Your task to perform on an android device: Go to Google Image 0: 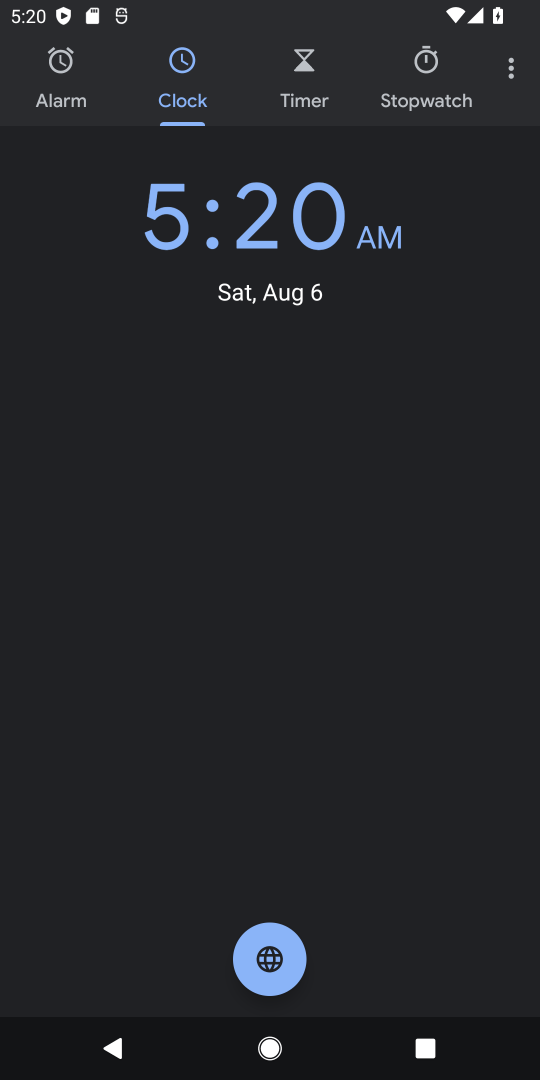
Step 0: press home button
Your task to perform on an android device: Go to Google Image 1: 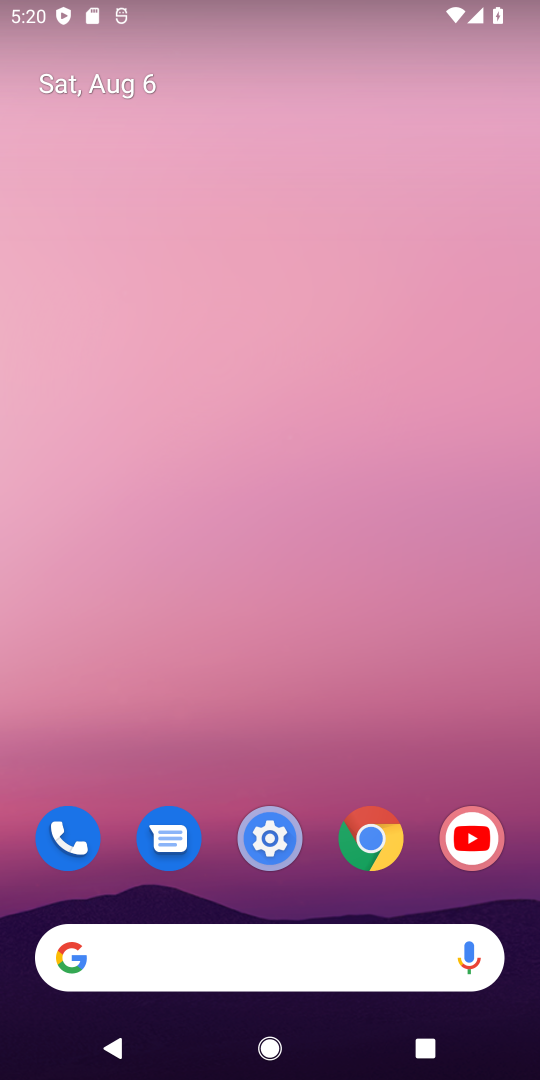
Step 1: click (217, 903)
Your task to perform on an android device: Go to Google Image 2: 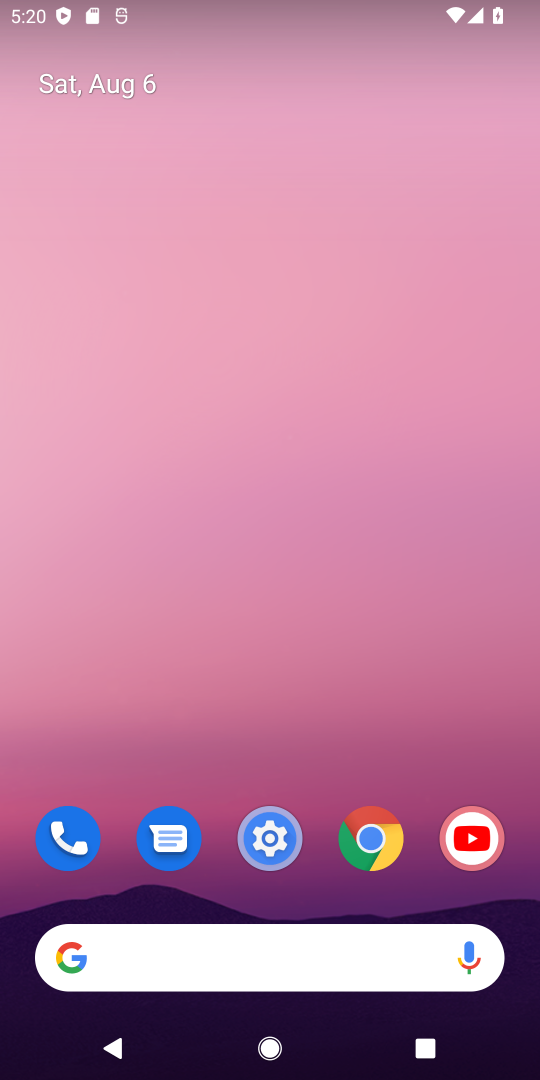
Step 2: click (50, 968)
Your task to perform on an android device: Go to Google Image 3: 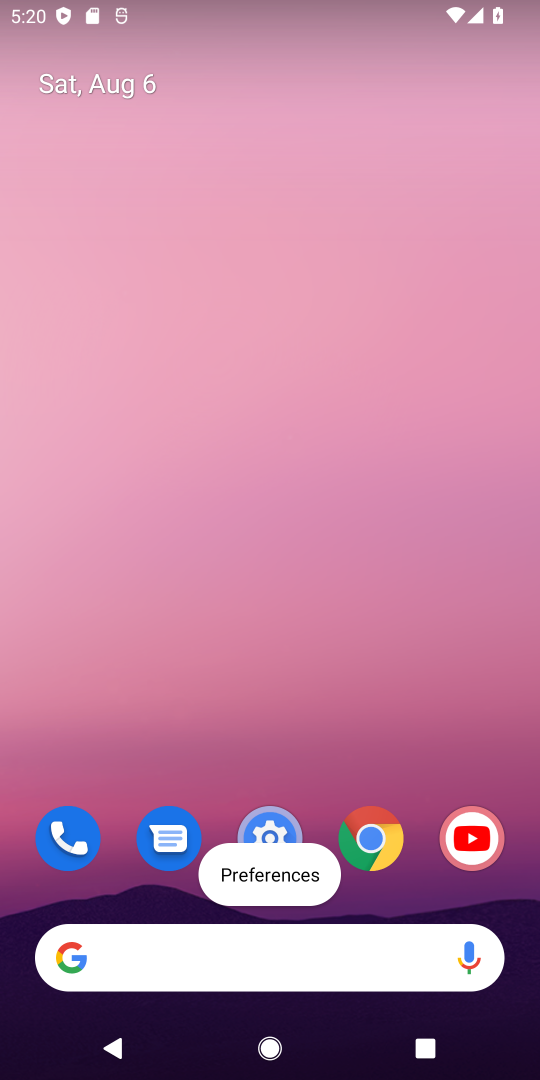
Step 3: click (66, 956)
Your task to perform on an android device: Go to Google Image 4: 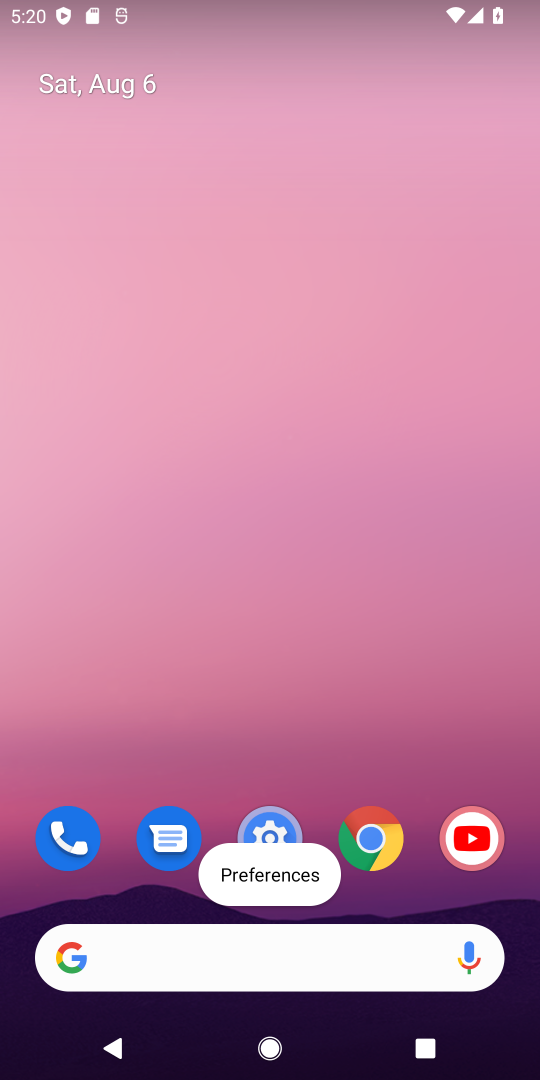
Step 4: click (160, 965)
Your task to perform on an android device: Go to Google Image 5: 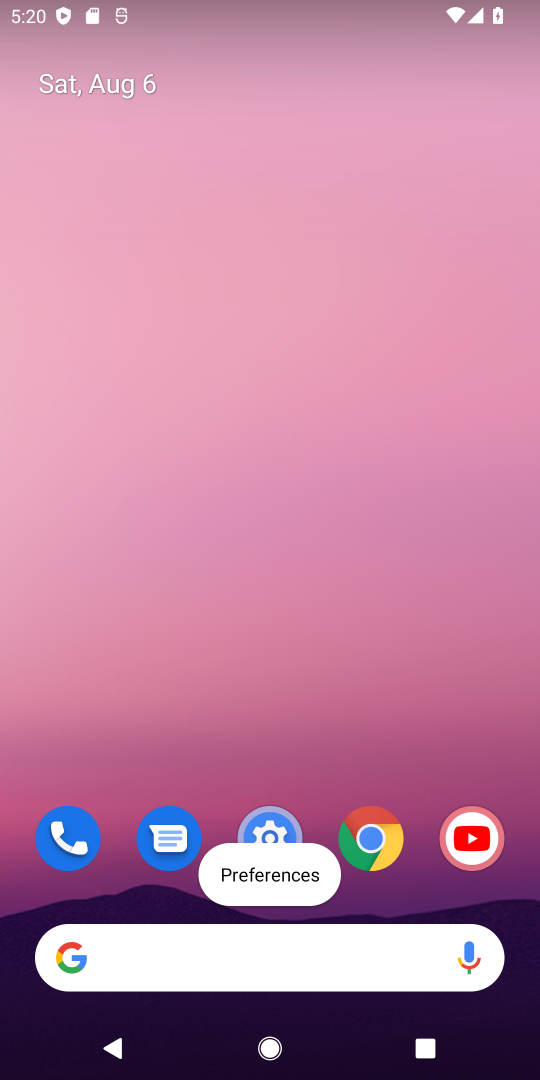
Step 5: click (276, 951)
Your task to perform on an android device: Go to Google Image 6: 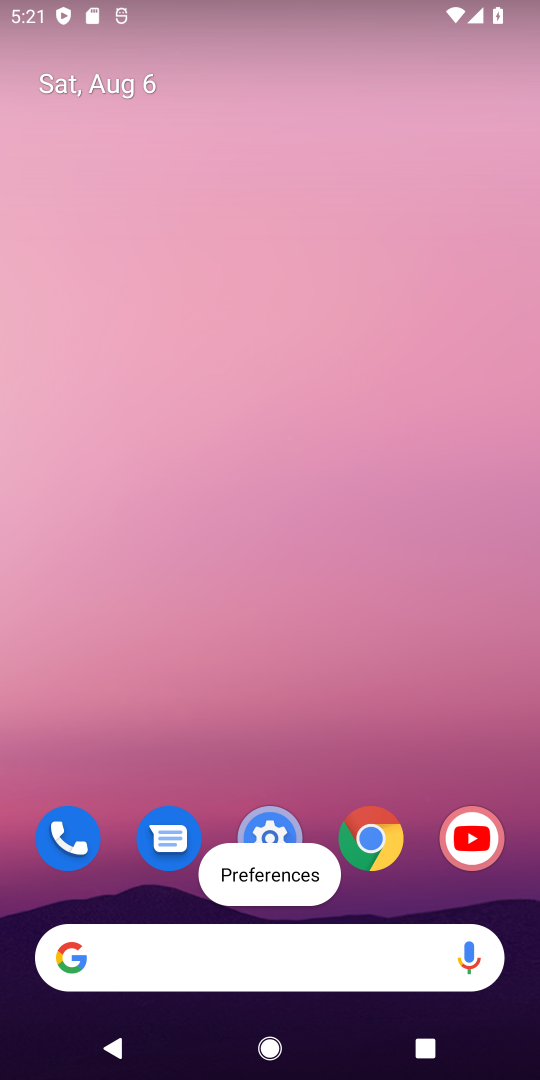
Step 6: click (276, 951)
Your task to perform on an android device: Go to Google Image 7: 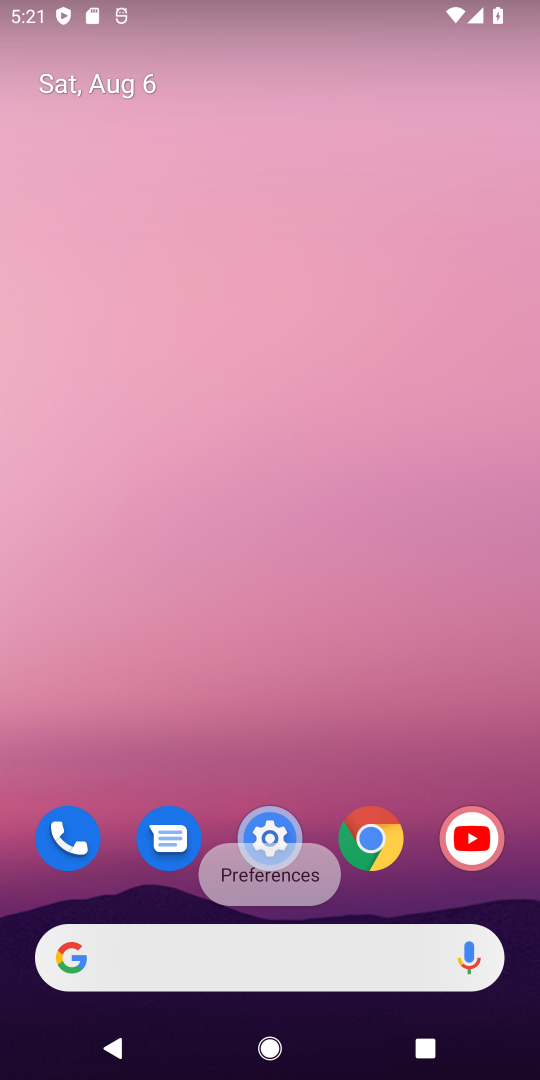
Step 7: click (276, 948)
Your task to perform on an android device: Go to Google Image 8: 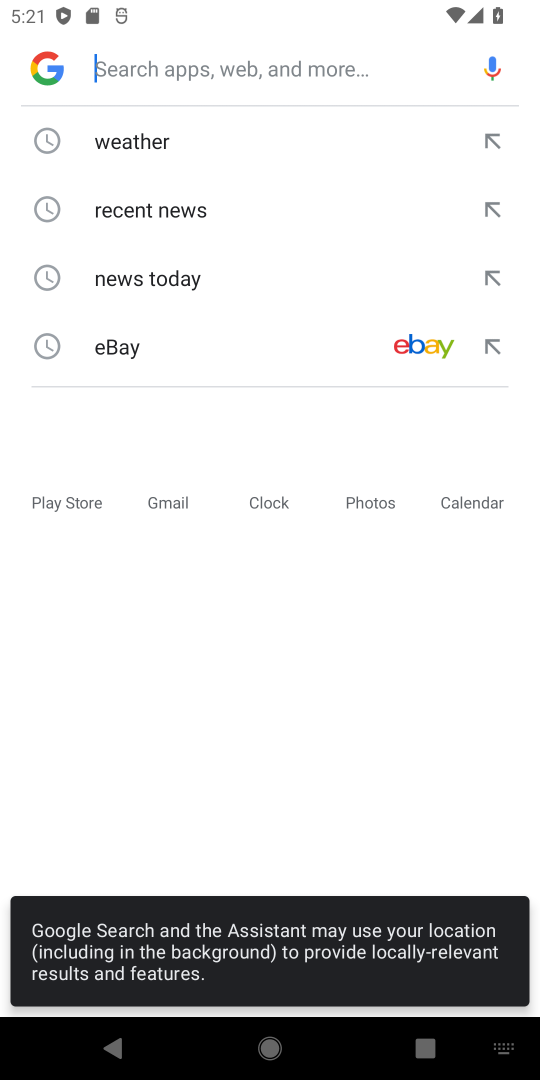
Step 8: click (43, 71)
Your task to perform on an android device: Go to Google Image 9: 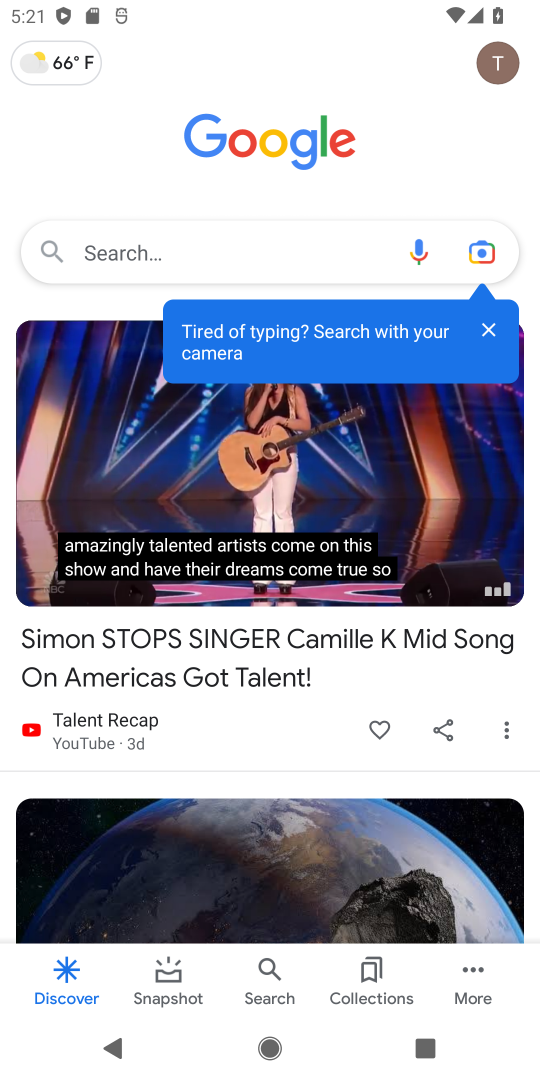
Step 9: task complete